Your task to perform on an android device: Check the weather Image 0: 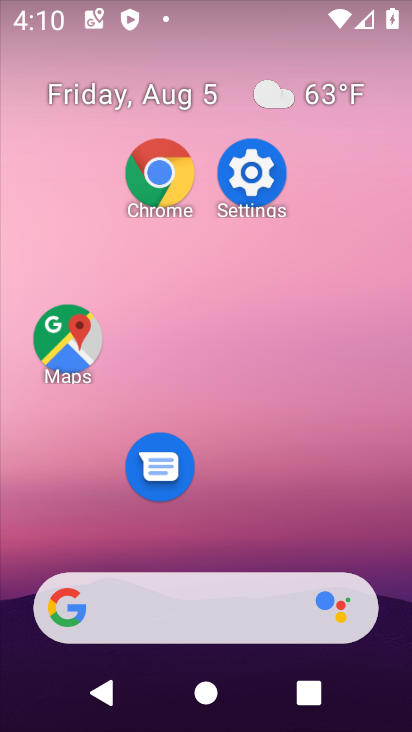
Step 0: drag from (313, 512) to (344, 26)
Your task to perform on an android device: Check the weather Image 1: 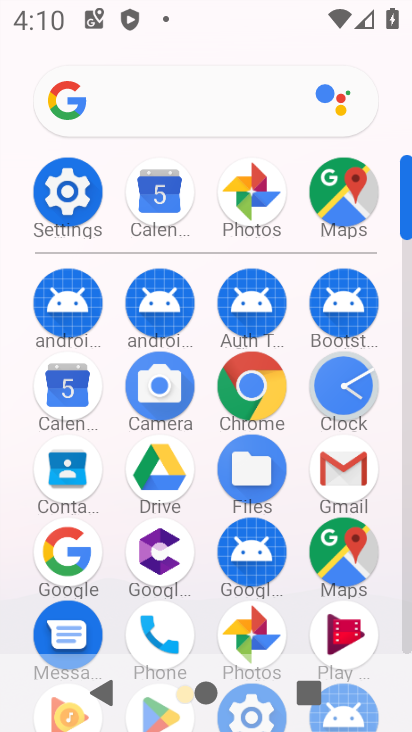
Step 1: click (262, 393)
Your task to perform on an android device: Check the weather Image 2: 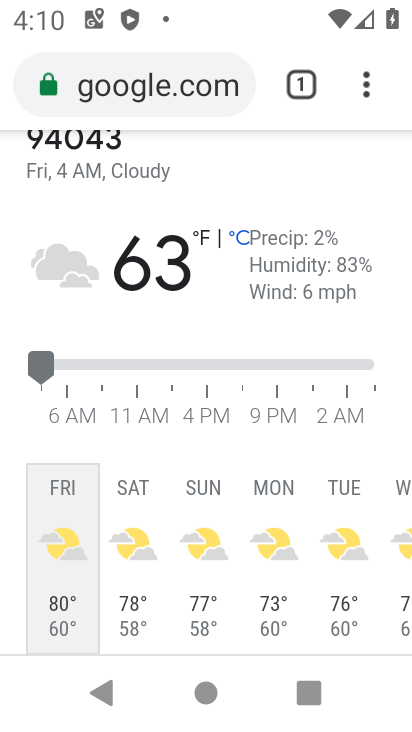
Step 2: drag from (189, 185) to (145, 510)
Your task to perform on an android device: Check the weather Image 3: 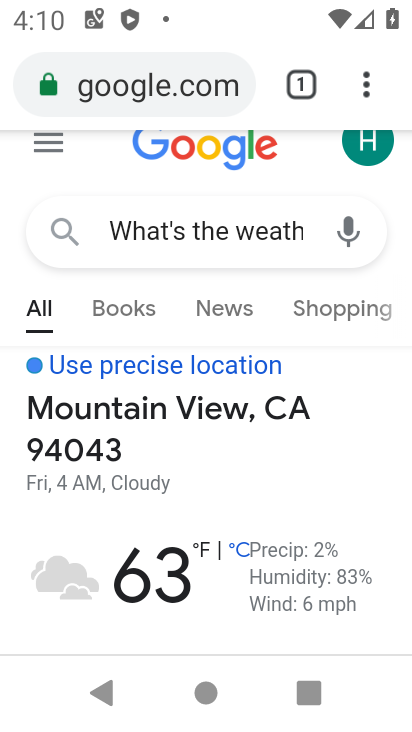
Step 3: click (139, 82)
Your task to perform on an android device: Check the weather Image 4: 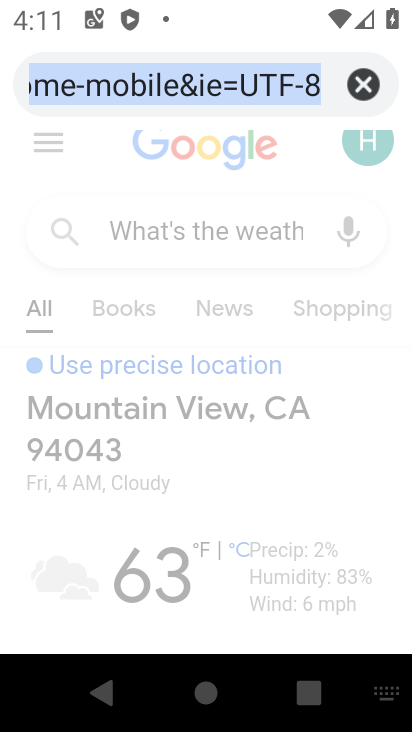
Step 4: type "Check the weather"
Your task to perform on an android device: Check the weather Image 5: 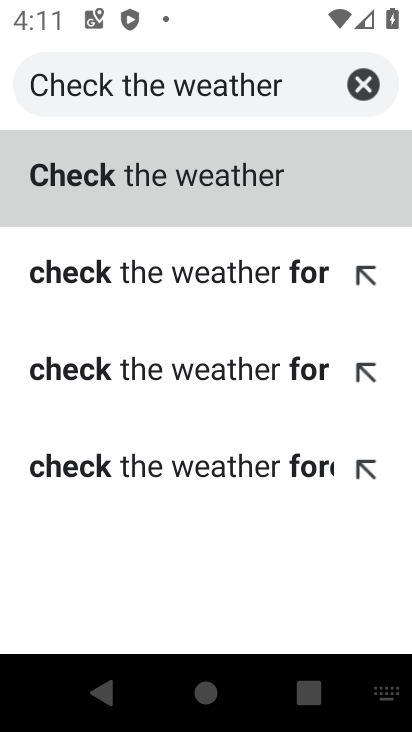
Step 5: click (143, 170)
Your task to perform on an android device: Check the weather Image 6: 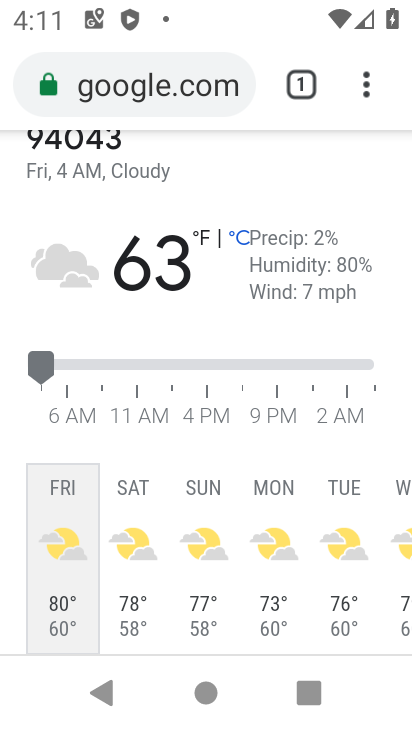
Step 6: task complete